Your task to perform on an android device: Show me productivity apps on the Play Store Image 0: 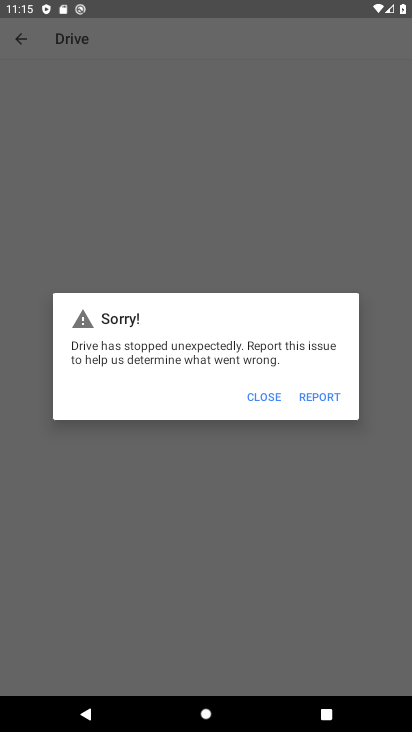
Step 0: press home button
Your task to perform on an android device: Show me productivity apps on the Play Store Image 1: 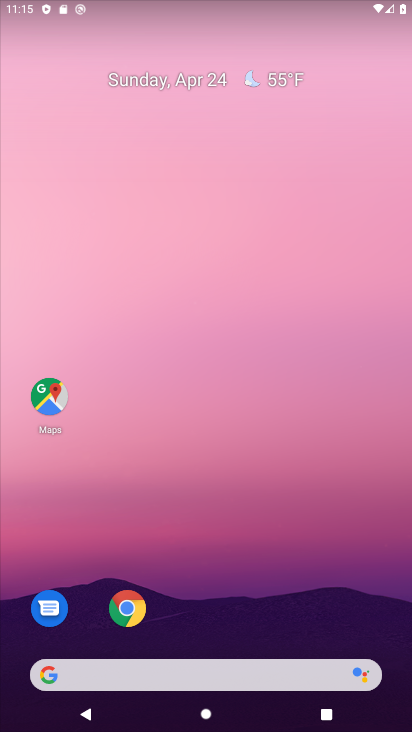
Step 1: drag from (177, 611) to (239, 32)
Your task to perform on an android device: Show me productivity apps on the Play Store Image 2: 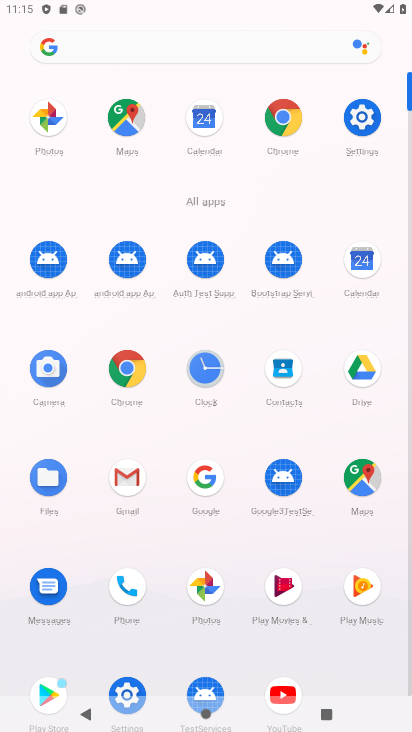
Step 2: click (50, 684)
Your task to perform on an android device: Show me productivity apps on the Play Store Image 3: 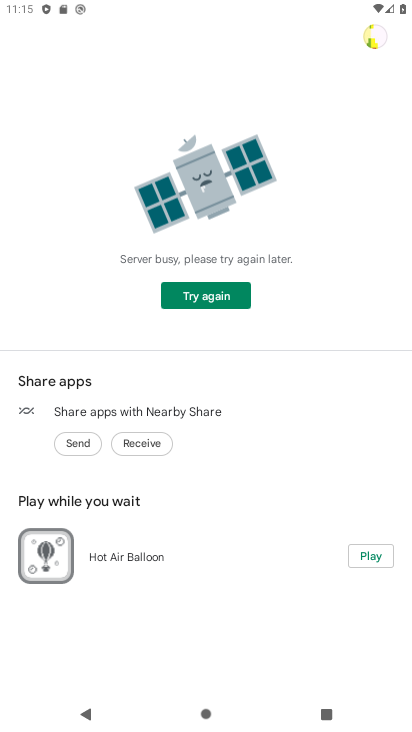
Step 3: click (200, 300)
Your task to perform on an android device: Show me productivity apps on the Play Store Image 4: 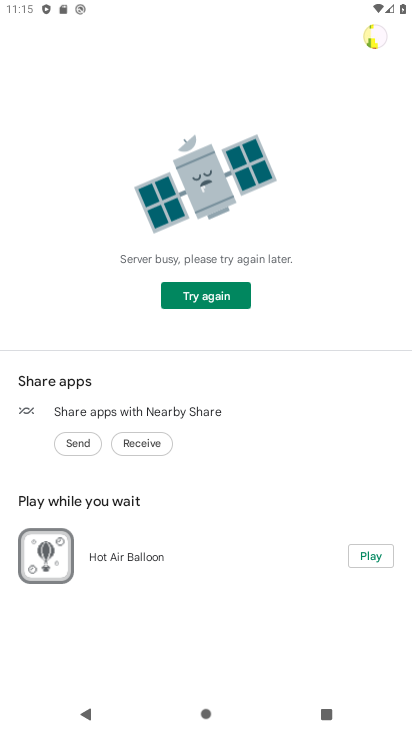
Step 4: click (206, 295)
Your task to perform on an android device: Show me productivity apps on the Play Store Image 5: 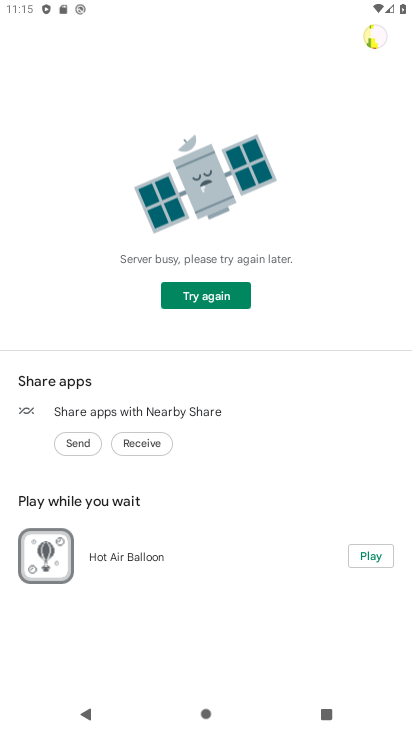
Step 5: task complete